Your task to perform on an android device: Go to settings Image 0: 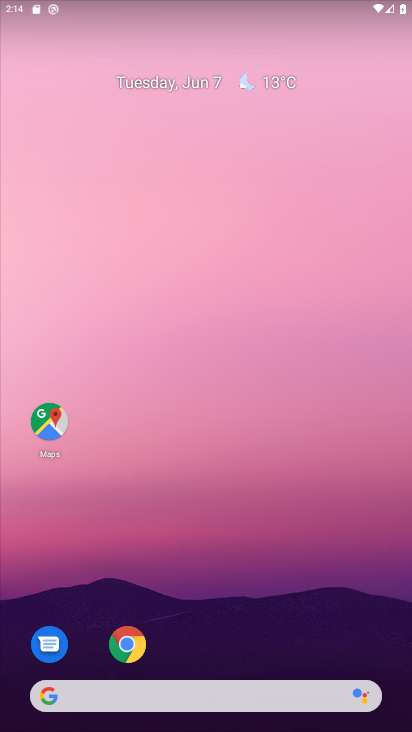
Step 0: press home button
Your task to perform on an android device: Go to settings Image 1: 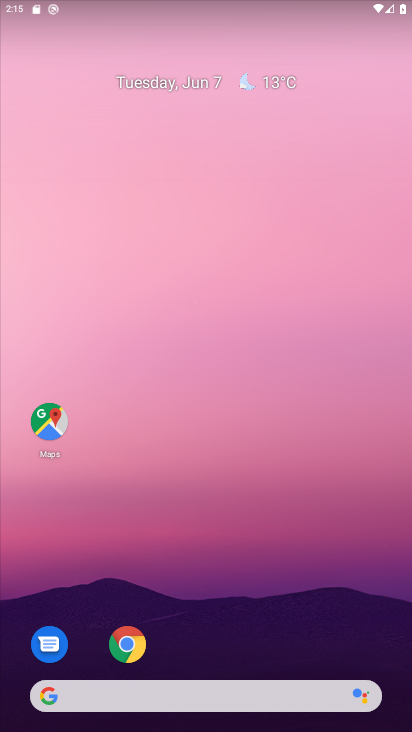
Step 1: drag from (209, 665) to (207, 73)
Your task to perform on an android device: Go to settings Image 2: 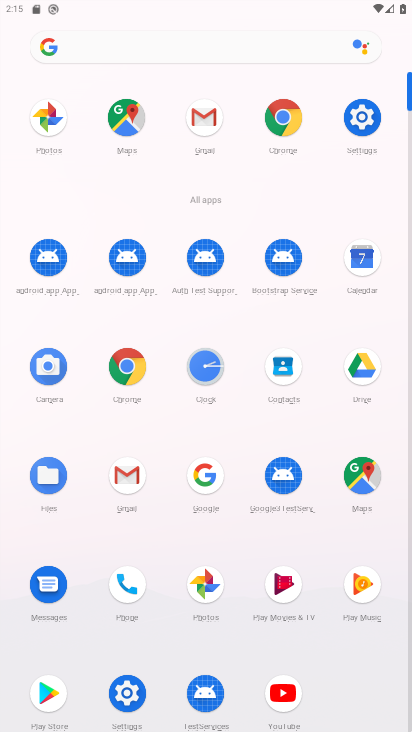
Step 2: click (359, 114)
Your task to perform on an android device: Go to settings Image 3: 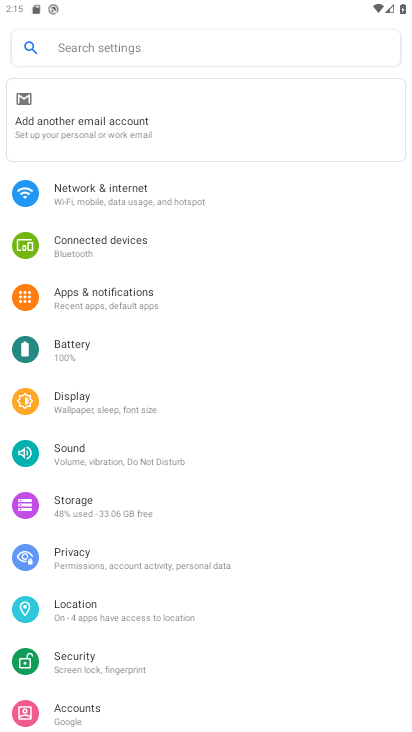
Step 3: task complete